Your task to perform on an android device: Is it going to rain this weekend? Image 0: 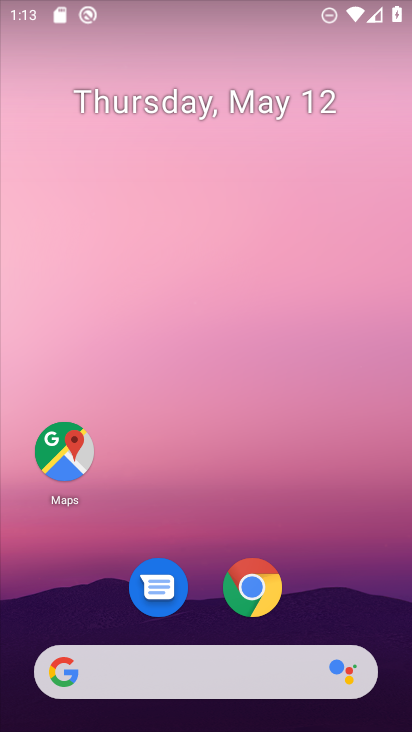
Step 0: drag from (349, 611) to (217, 66)
Your task to perform on an android device: Is it going to rain this weekend? Image 1: 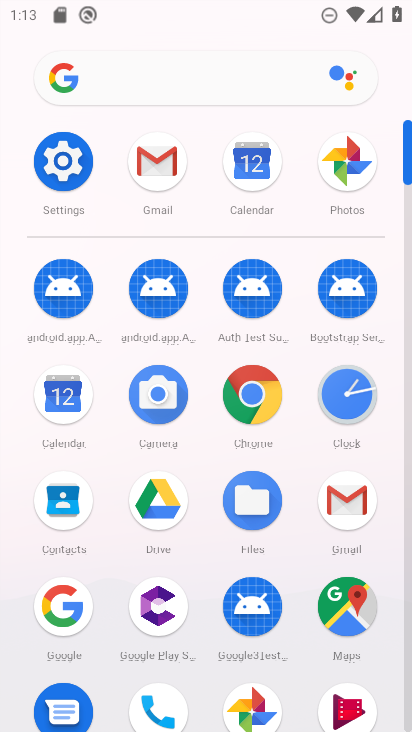
Step 1: click (60, 601)
Your task to perform on an android device: Is it going to rain this weekend? Image 2: 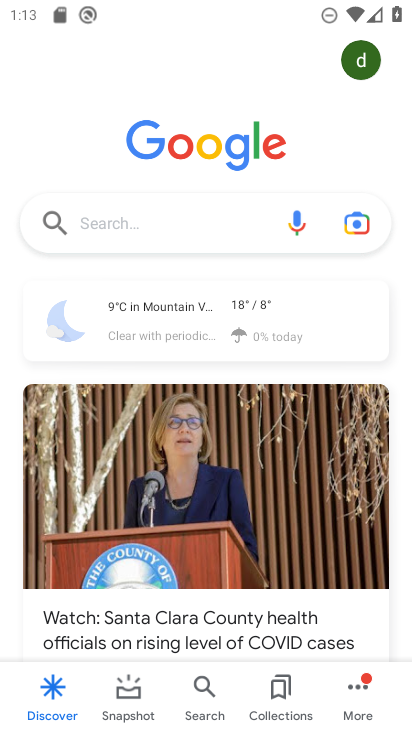
Step 2: click (199, 225)
Your task to perform on an android device: Is it going to rain this weekend? Image 3: 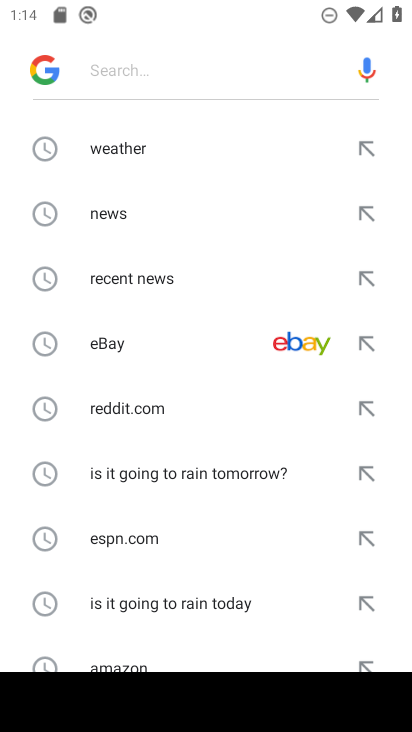
Step 3: type "Is it going to rain this weekend"
Your task to perform on an android device: Is it going to rain this weekend? Image 4: 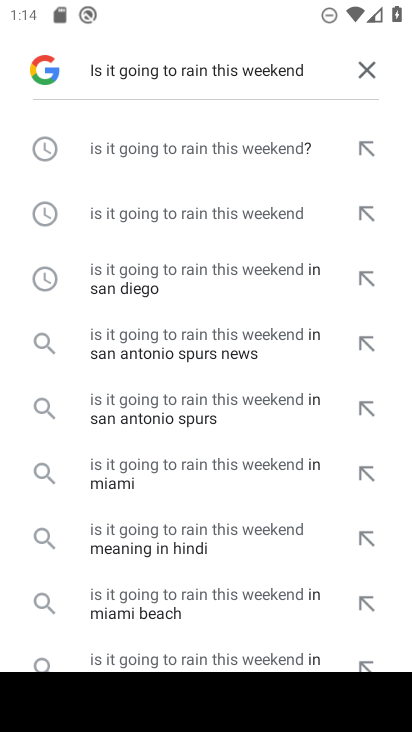
Step 4: click (149, 207)
Your task to perform on an android device: Is it going to rain this weekend? Image 5: 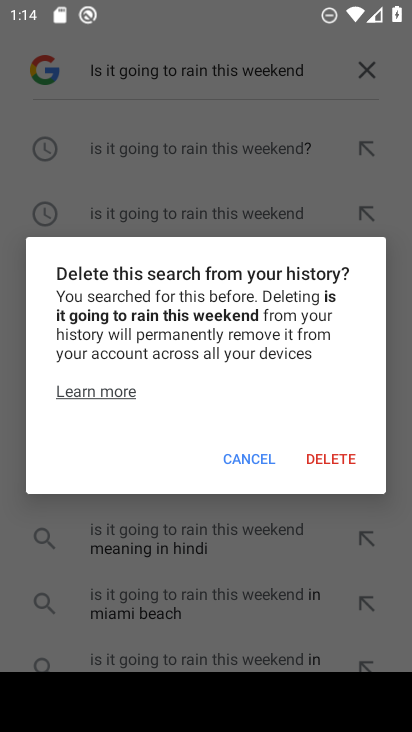
Step 5: click (260, 459)
Your task to perform on an android device: Is it going to rain this weekend? Image 6: 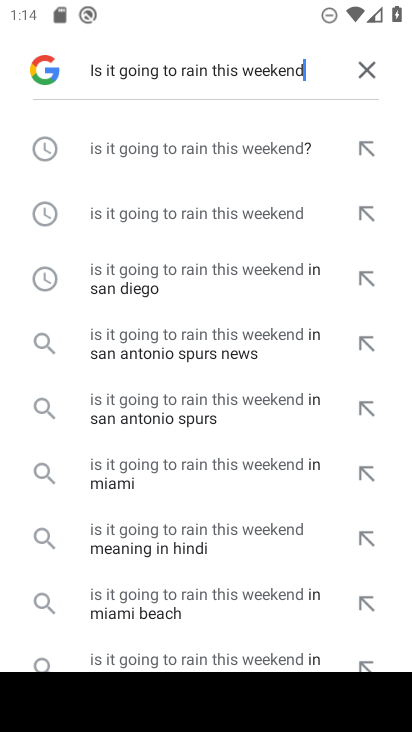
Step 6: click (175, 146)
Your task to perform on an android device: Is it going to rain this weekend? Image 7: 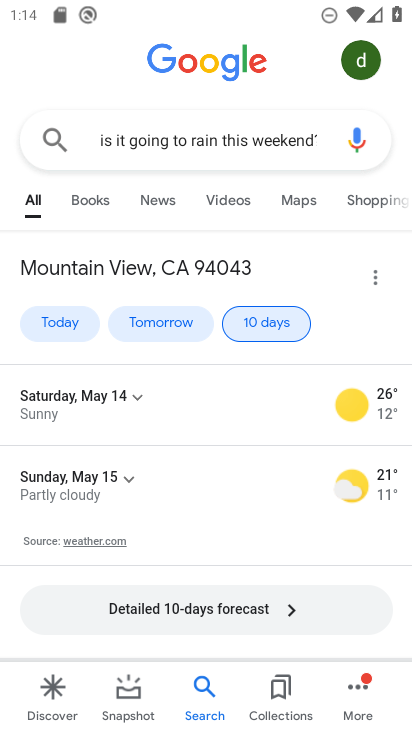
Step 7: task complete